Your task to perform on an android device: turn on showing notifications on the lock screen Image 0: 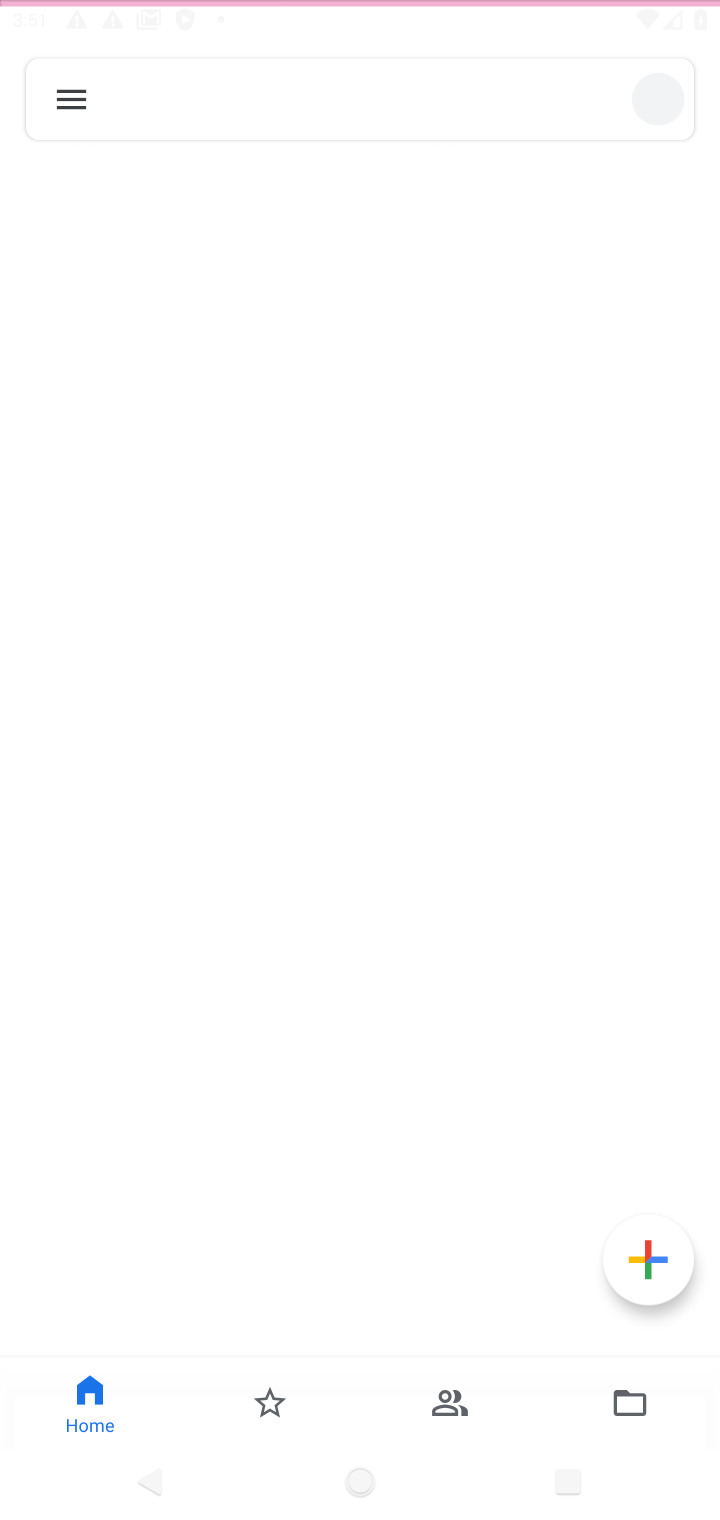
Step 0: press home button
Your task to perform on an android device: turn on showing notifications on the lock screen Image 1: 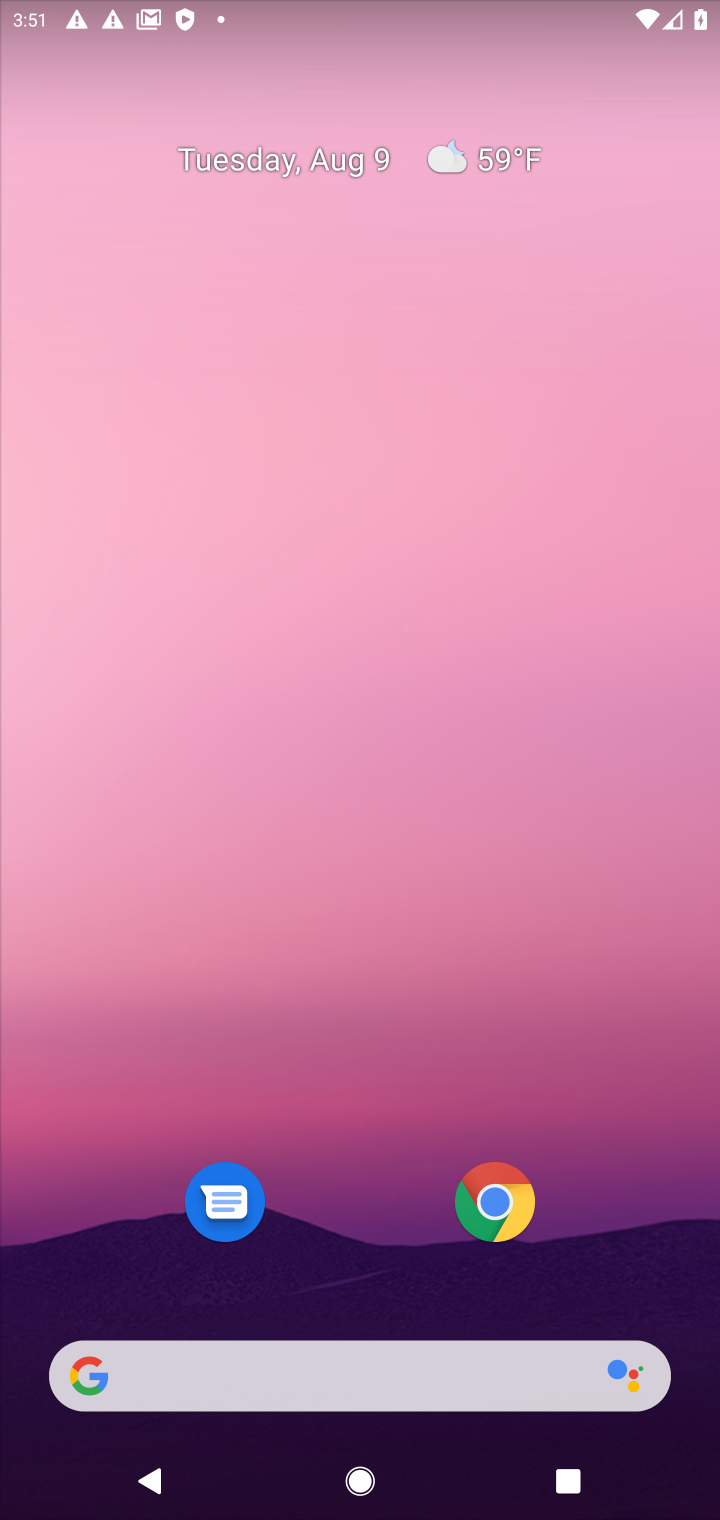
Step 1: drag from (360, 1262) to (433, 54)
Your task to perform on an android device: turn on showing notifications on the lock screen Image 2: 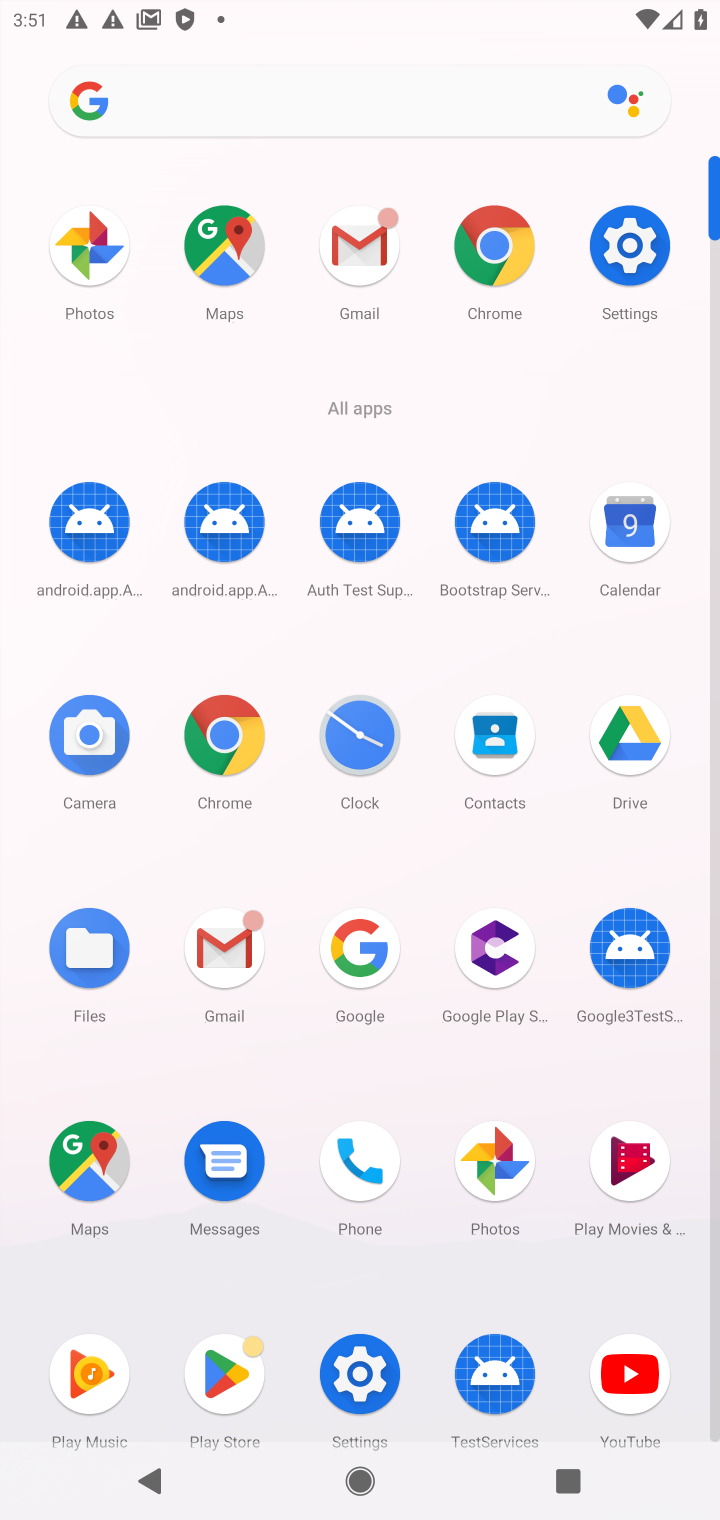
Step 2: click (629, 239)
Your task to perform on an android device: turn on showing notifications on the lock screen Image 3: 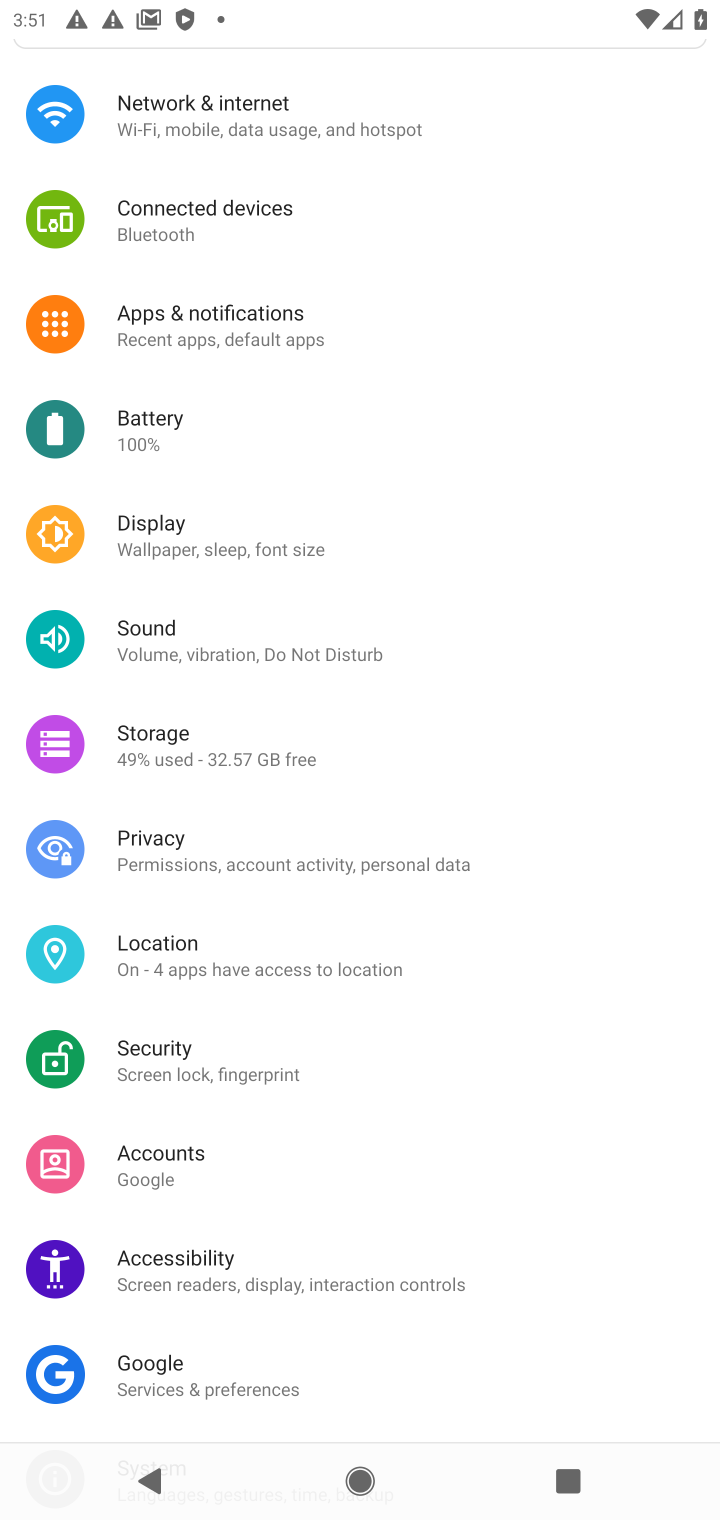
Step 3: click (343, 316)
Your task to perform on an android device: turn on showing notifications on the lock screen Image 4: 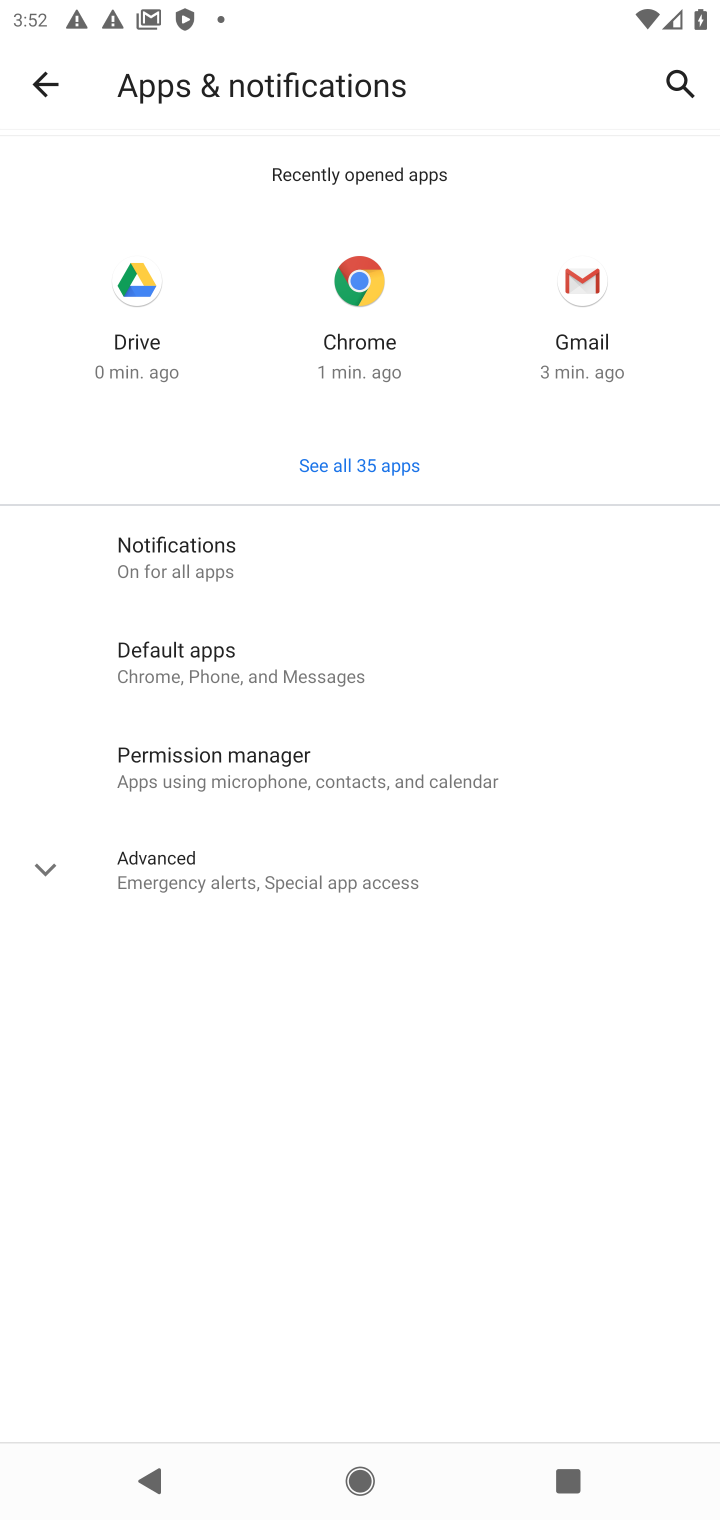
Step 4: click (238, 556)
Your task to perform on an android device: turn on showing notifications on the lock screen Image 5: 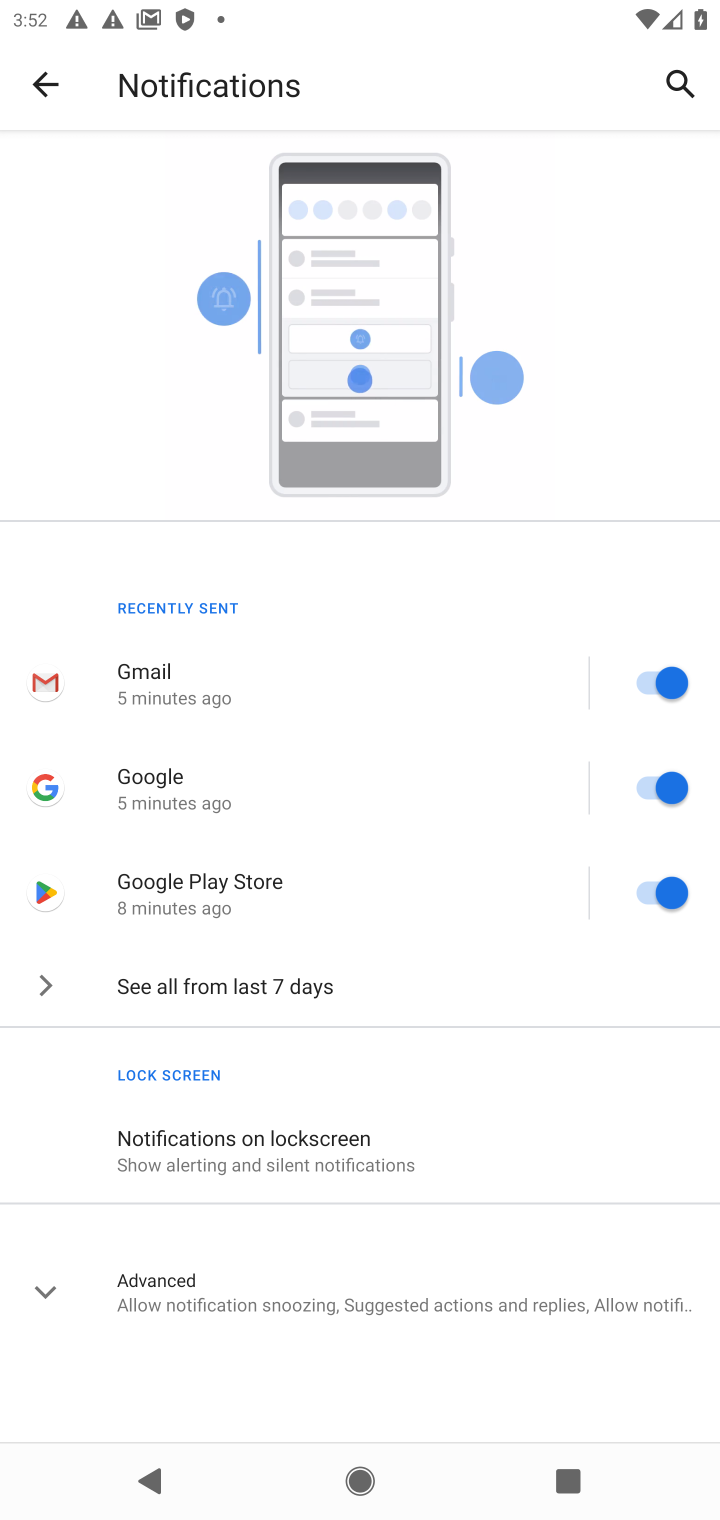
Step 5: click (425, 1147)
Your task to perform on an android device: turn on showing notifications on the lock screen Image 6: 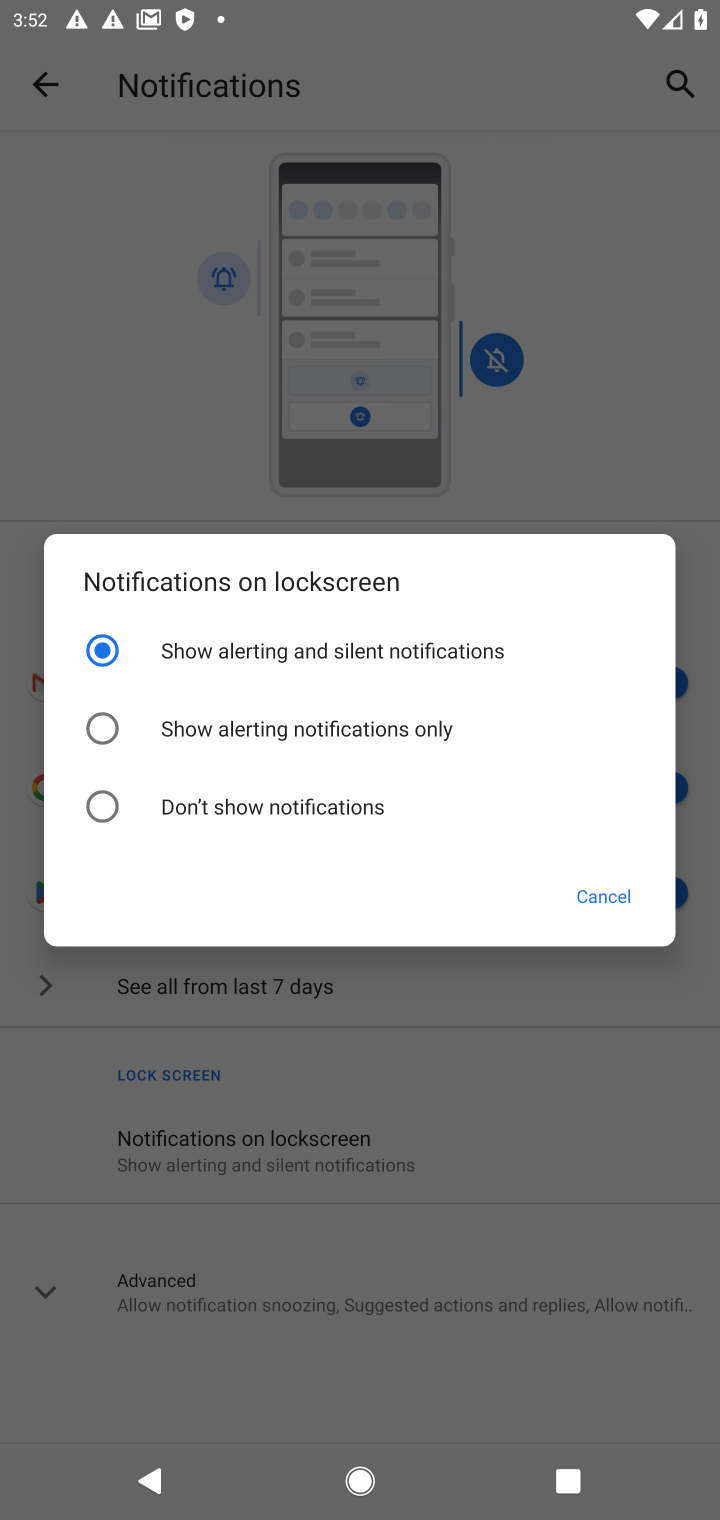
Step 6: click (112, 729)
Your task to perform on an android device: turn on showing notifications on the lock screen Image 7: 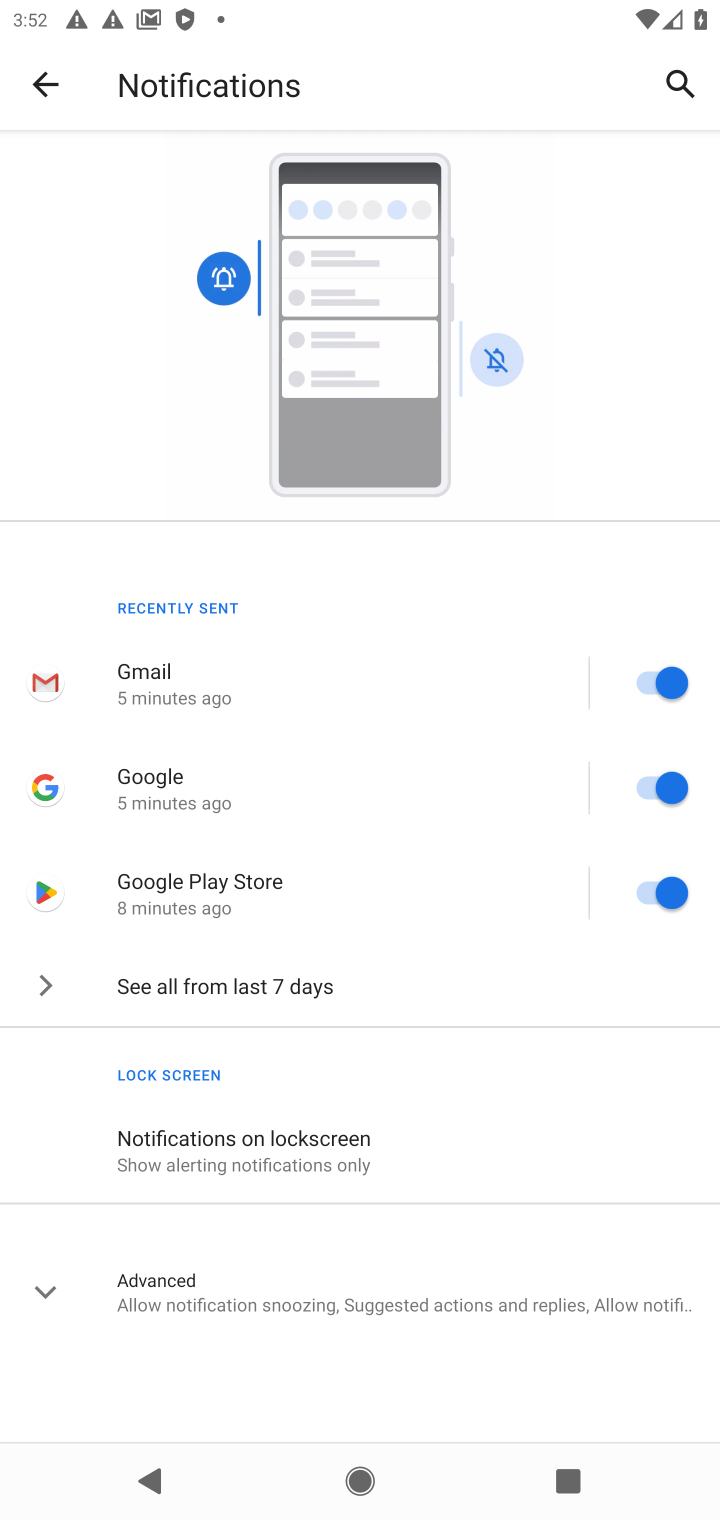
Step 7: task complete